Your task to perform on an android device: What's on my calendar today? Image 0: 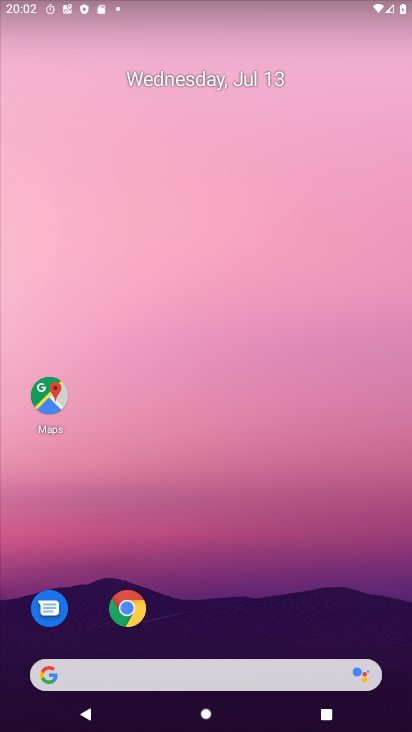
Step 0: drag from (239, 645) to (143, 109)
Your task to perform on an android device: What's on my calendar today? Image 1: 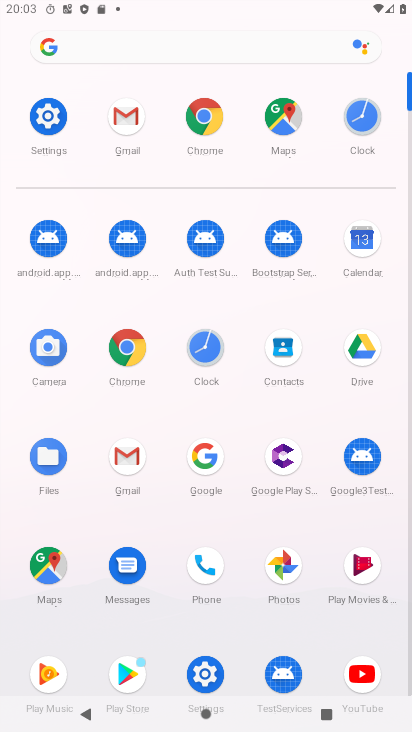
Step 1: click (360, 234)
Your task to perform on an android device: What's on my calendar today? Image 2: 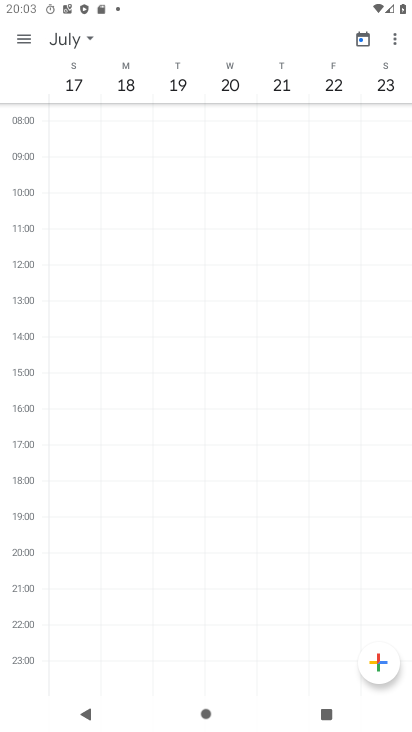
Step 2: click (360, 34)
Your task to perform on an android device: What's on my calendar today? Image 3: 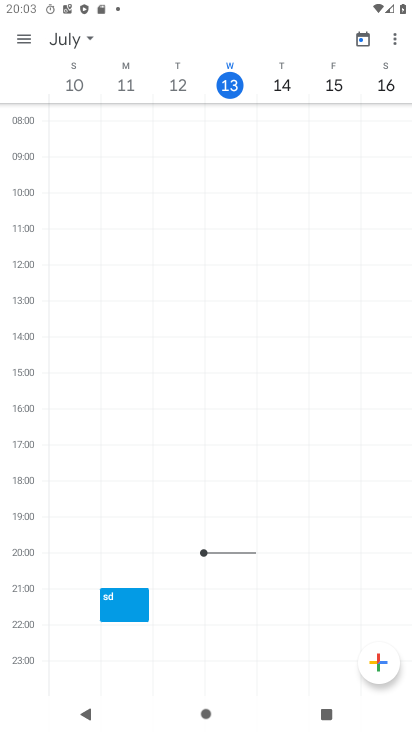
Step 3: click (226, 80)
Your task to perform on an android device: What's on my calendar today? Image 4: 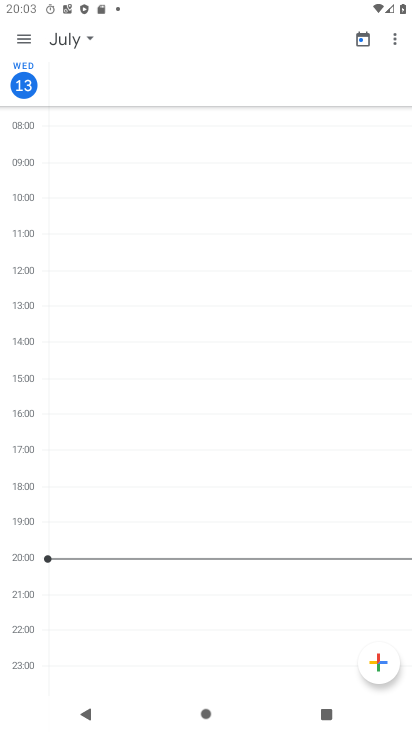
Step 4: task complete